Your task to perform on an android device: open a new tab in the chrome app Image 0: 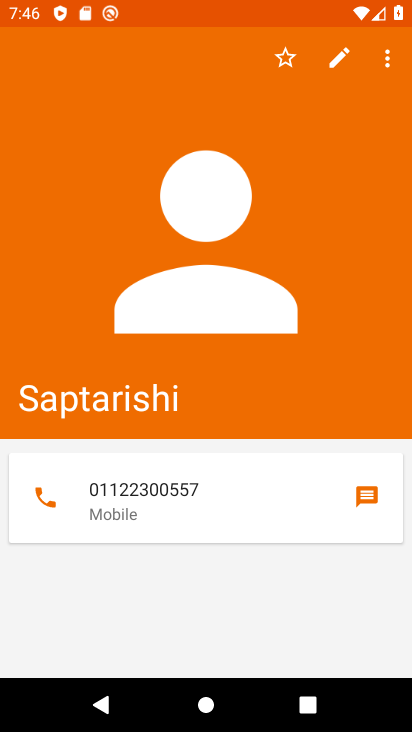
Step 0: press home button
Your task to perform on an android device: open a new tab in the chrome app Image 1: 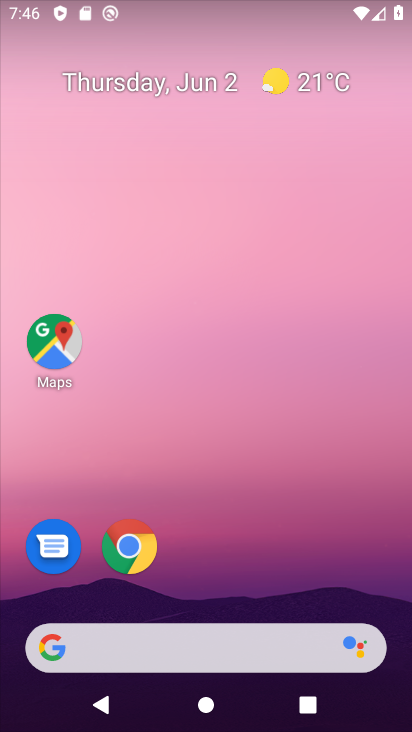
Step 1: click (132, 546)
Your task to perform on an android device: open a new tab in the chrome app Image 2: 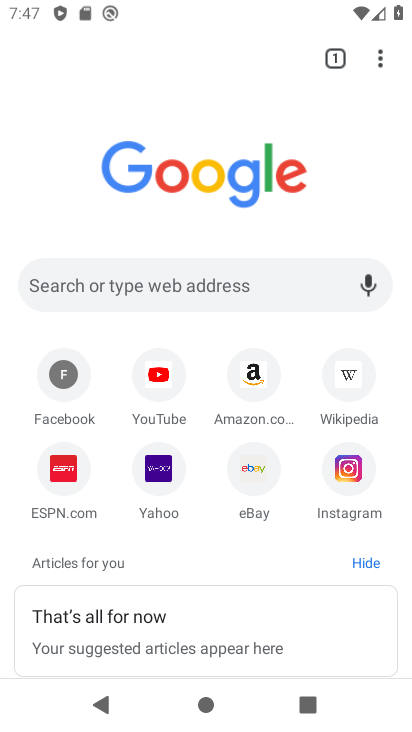
Step 2: click (382, 63)
Your task to perform on an android device: open a new tab in the chrome app Image 3: 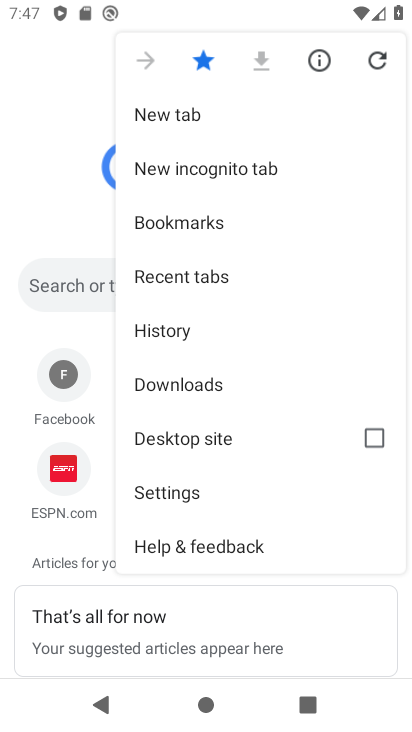
Step 3: click (301, 111)
Your task to perform on an android device: open a new tab in the chrome app Image 4: 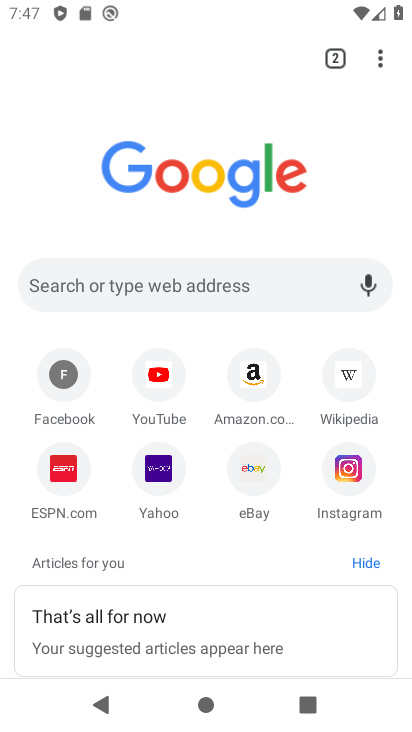
Step 4: task complete